Your task to perform on an android device: What's on my calendar tomorrow? Image 0: 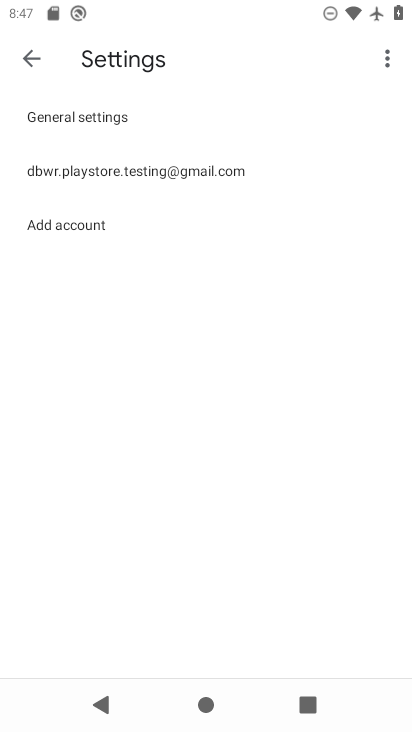
Step 0: press home button
Your task to perform on an android device: What's on my calendar tomorrow? Image 1: 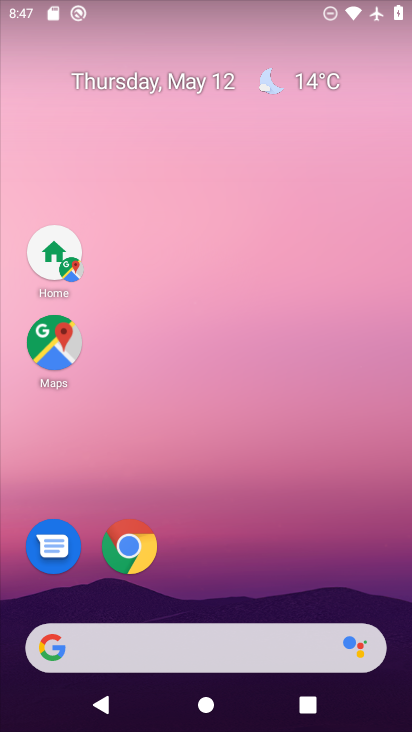
Step 1: drag from (224, 658) to (317, 230)
Your task to perform on an android device: What's on my calendar tomorrow? Image 2: 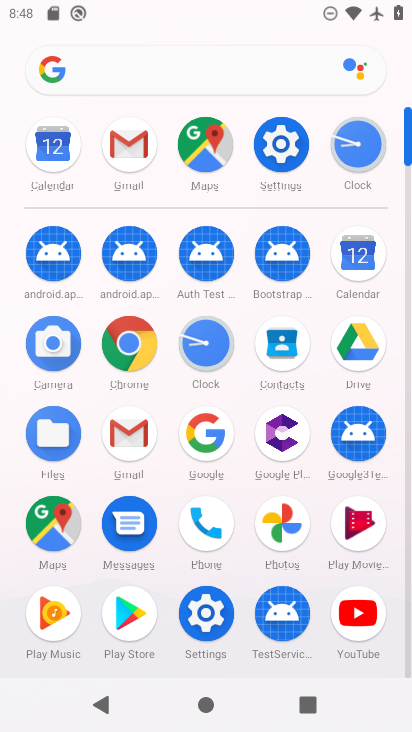
Step 2: click (353, 265)
Your task to perform on an android device: What's on my calendar tomorrow? Image 3: 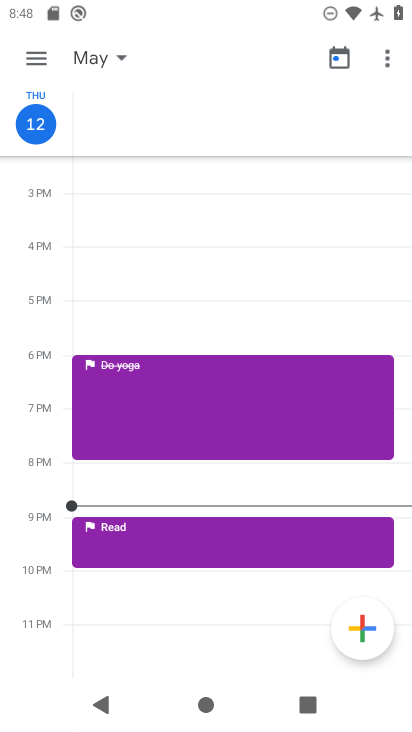
Step 3: click (77, 52)
Your task to perform on an android device: What's on my calendar tomorrow? Image 4: 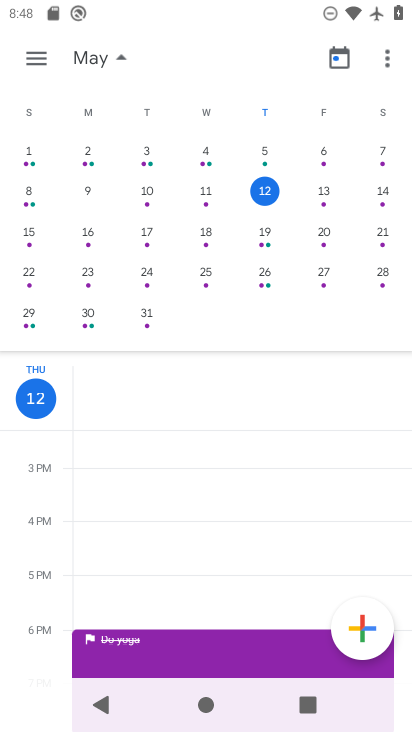
Step 4: click (336, 193)
Your task to perform on an android device: What's on my calendar tomorrow? Image 5: 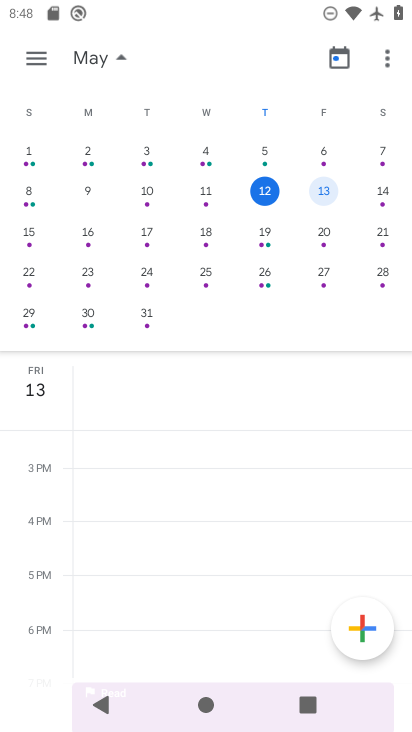
Step 5: click (50, 67)
Your task to perform on an android device: What's on my calendar tomorrow? Image 6: 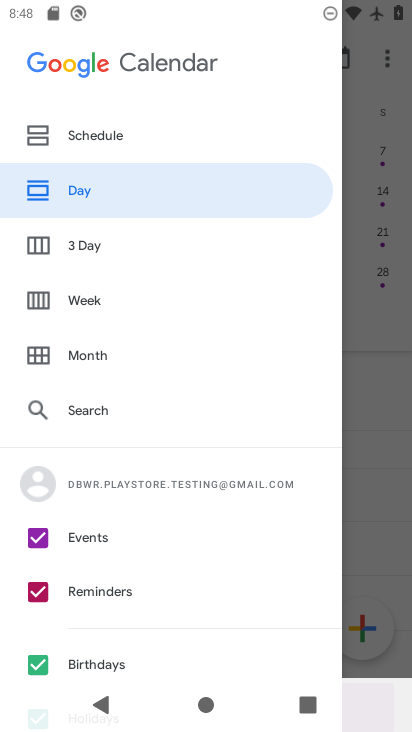
Step 6: click (98, 135)
Your task to perform on an android device: What's on my calendar tomorrow? Image 7: 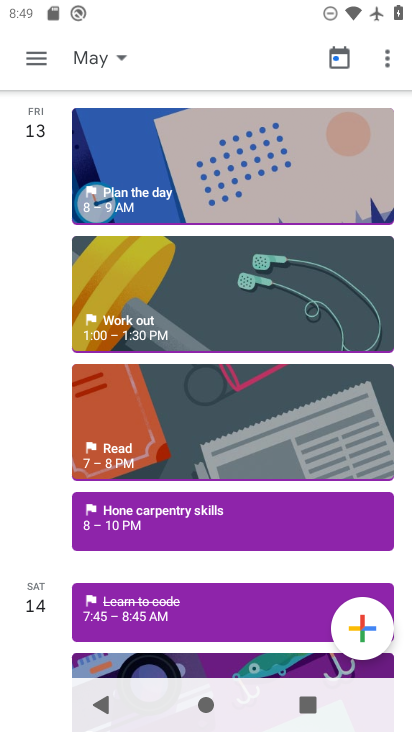
Step 7: task complete